Your task to perform on an android device: Show me productivity apps on the Play Store Image 0: 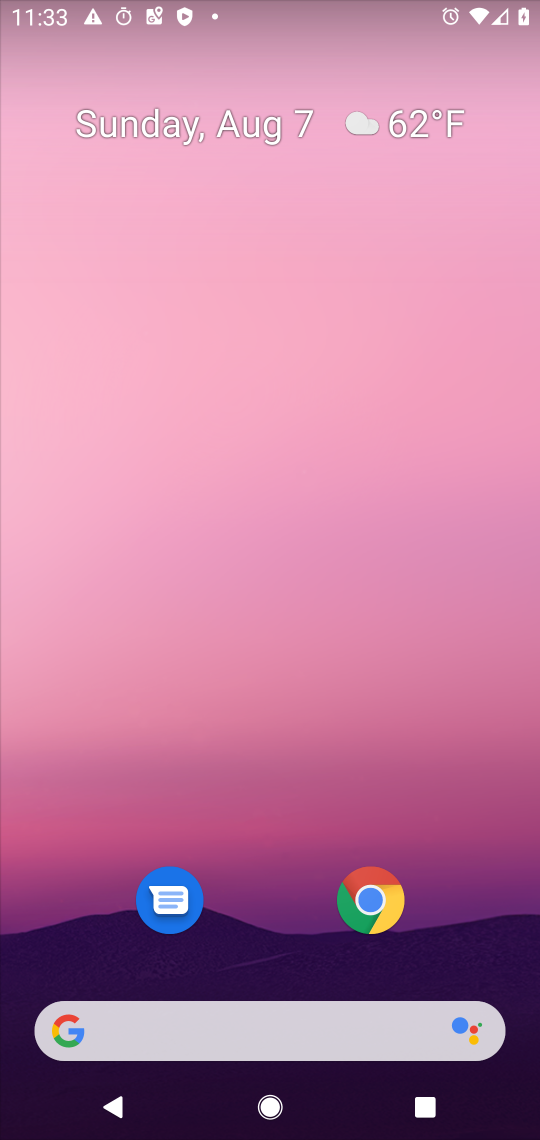
Step 0: press home button
Your task to perform on an android device: Show me productivity apps on the Play Store Image 1: 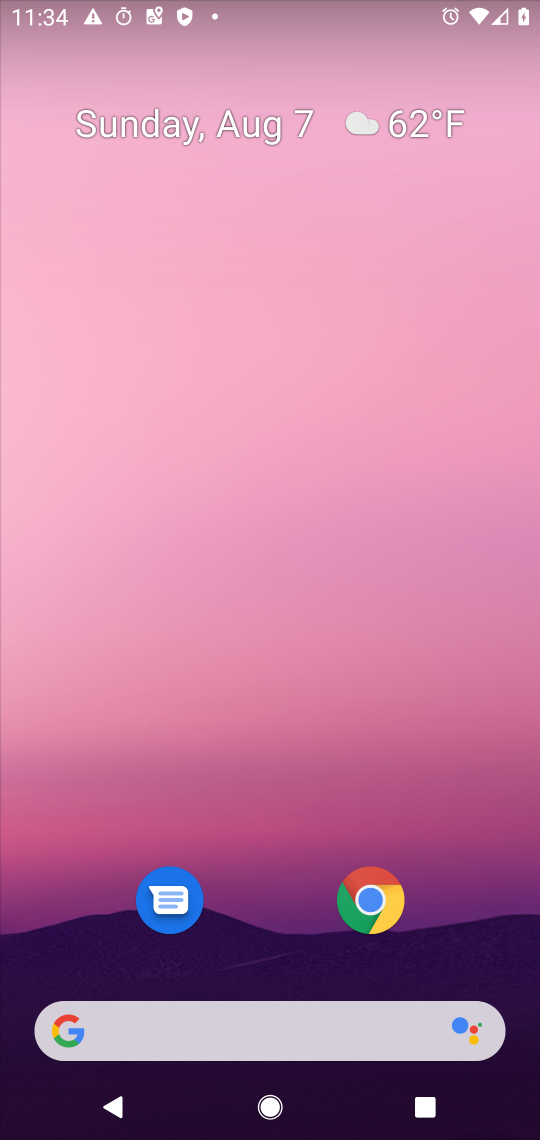
Step 1: drag from (269, 961) to (264, 69)
Your task to perform on an android device: Show me productivity apps on the Play Store Image 2: 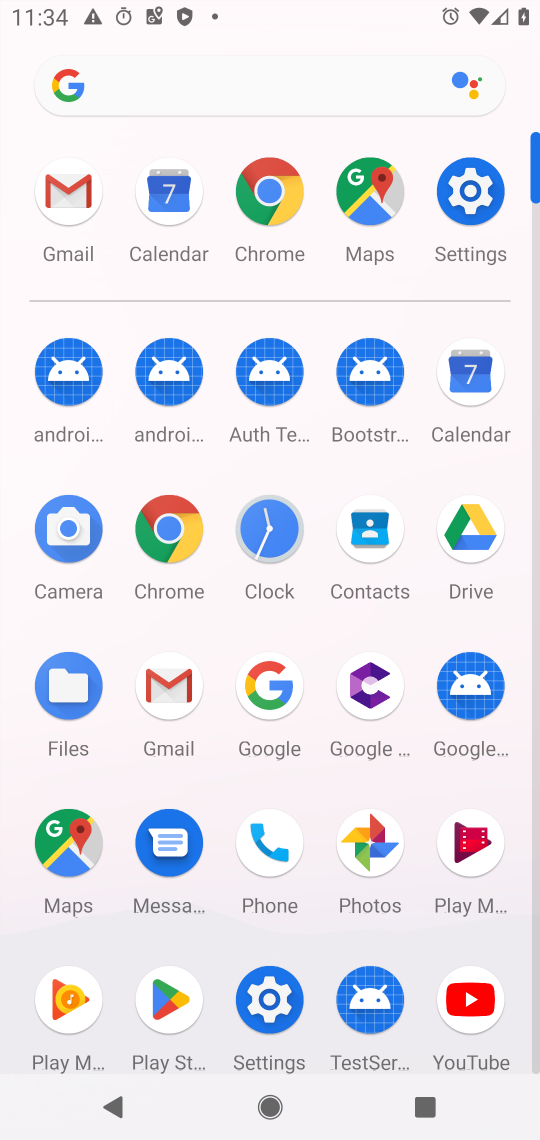
Step 2: click (163, 991)
Your task to perform on an android device: Show me productivity apps on the Play Store Image 3: 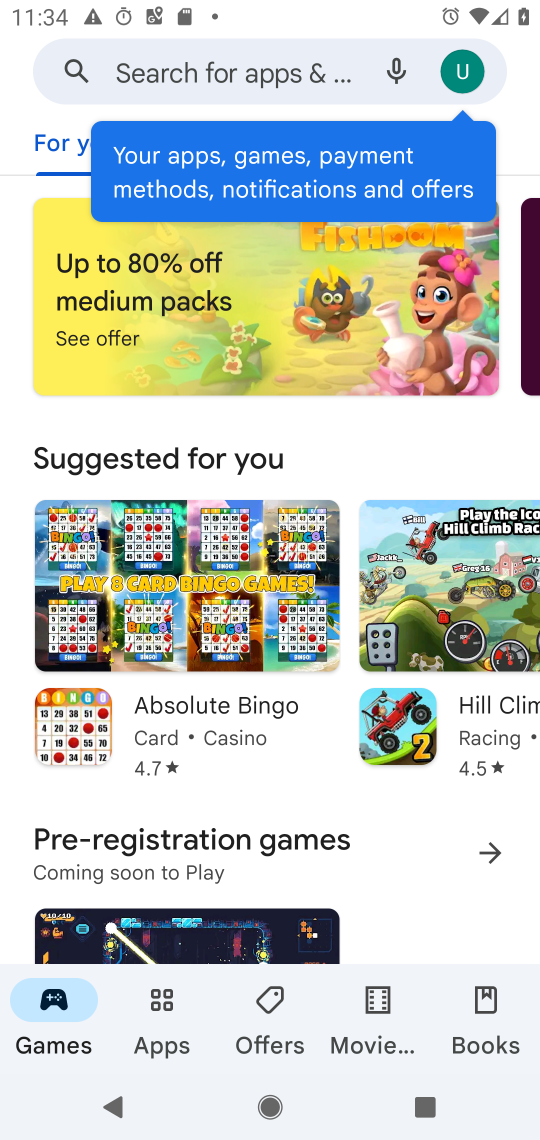
Step 3: click (151, 1010)
Your task to perform on an android device: Show me productivity apps on the Play Store Image 4: 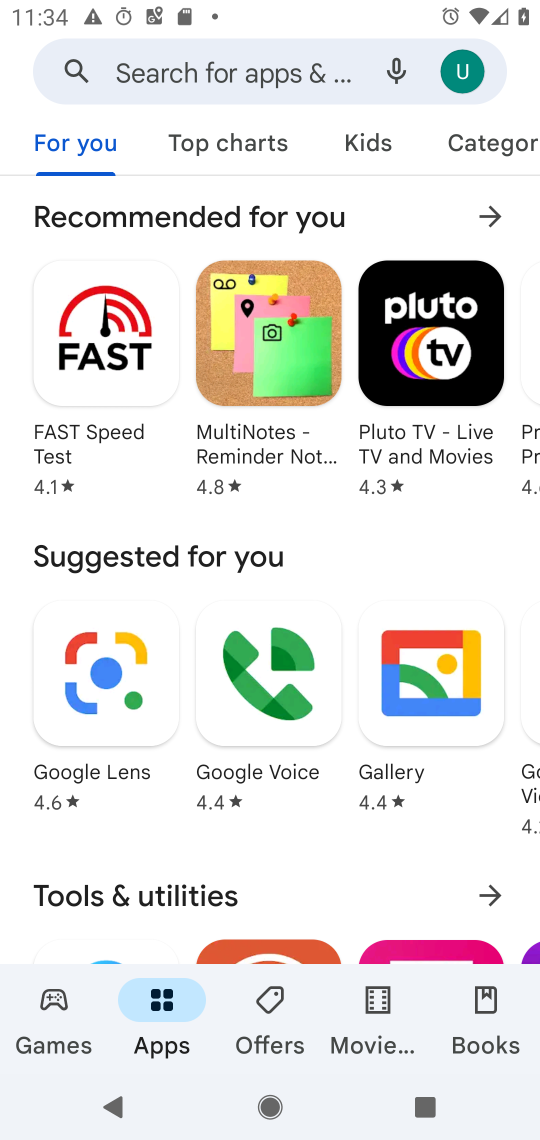
Step 4: click (493, 139)
Your task to perform on an android device: Show me productivity apps on the Play Store Image 5: 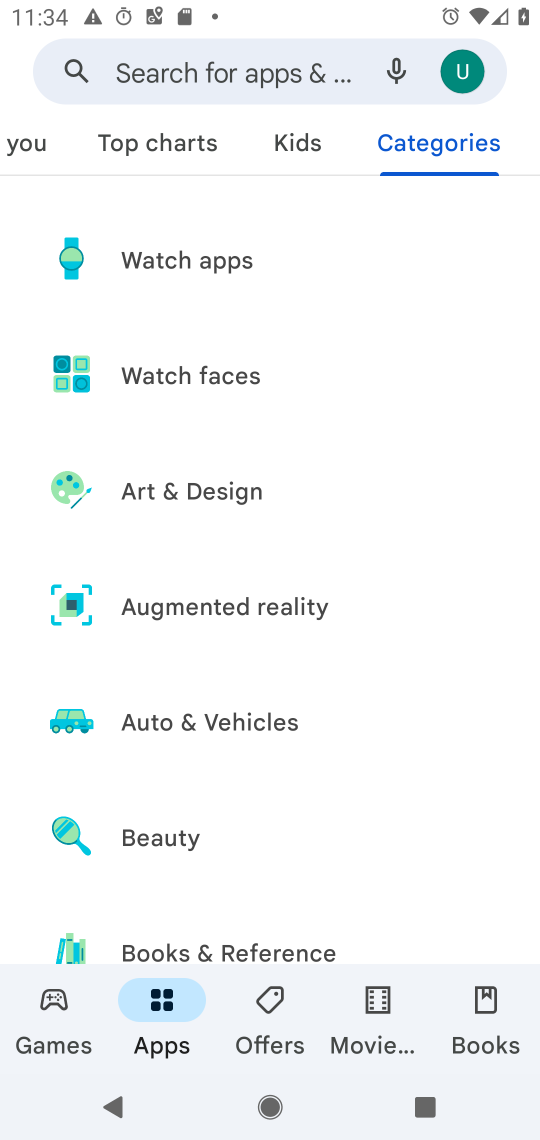
Step 5: drag from (237, 924) to (276, 51)
Your task to perform on an android device: Show me productivity apps on the Play Store Image 6: 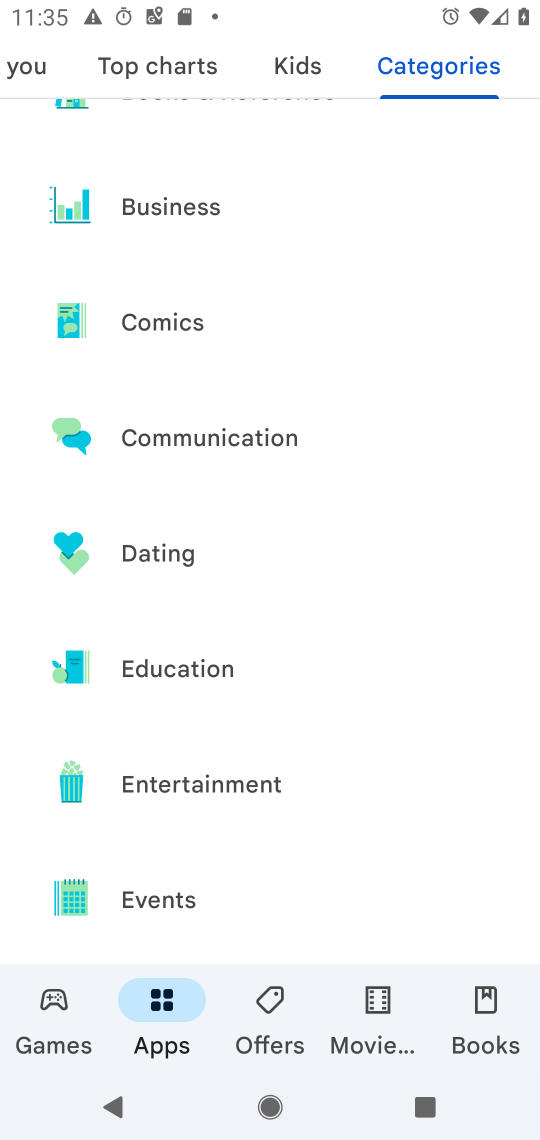
Step 6: drag from (270, 904) to (325, 0)
Your task to perform on an android device: Show me productivity apps on the Play Store Image 7: 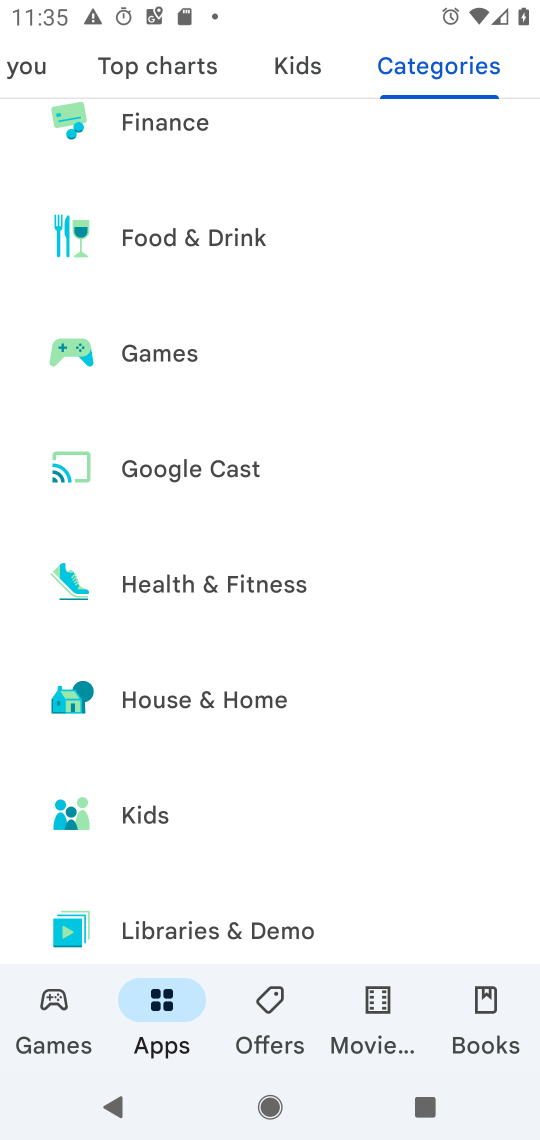
Step 7: drag from (273, 868) to (342, 108)
Your task to perform on an android device: Show me productivity apps on the Play Store Image 8: 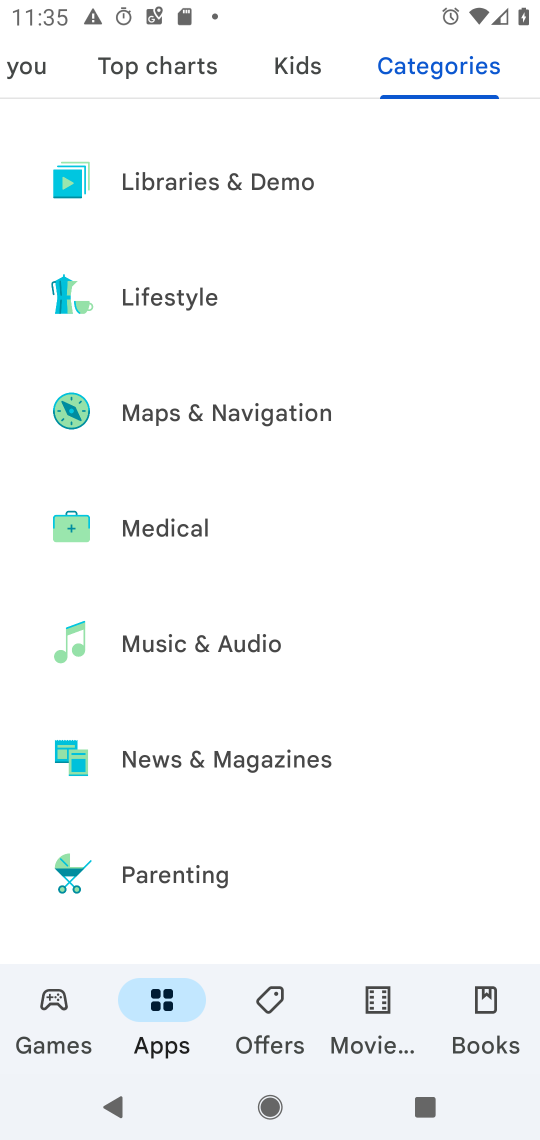
Step 8: drag from (254, 903) to (230, 34)
Your task to perform on an android device: Show me productivity apps on the Play Store Image 9: 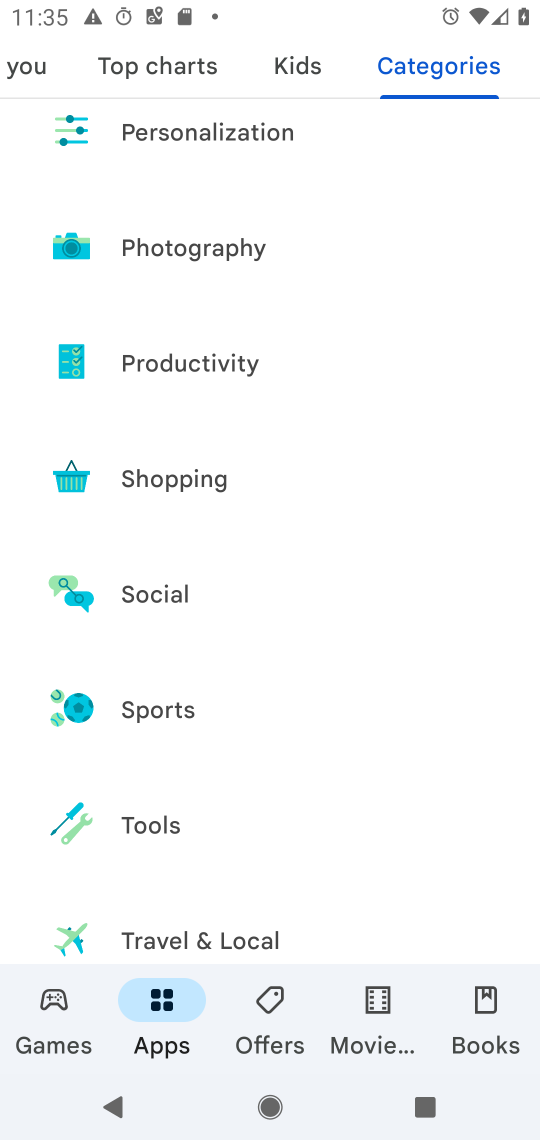
Step 9: drag from (224, 881) to (298, 1013)
Your task to perform on an android device: Show me productivity apps on the Play Store Image 10: 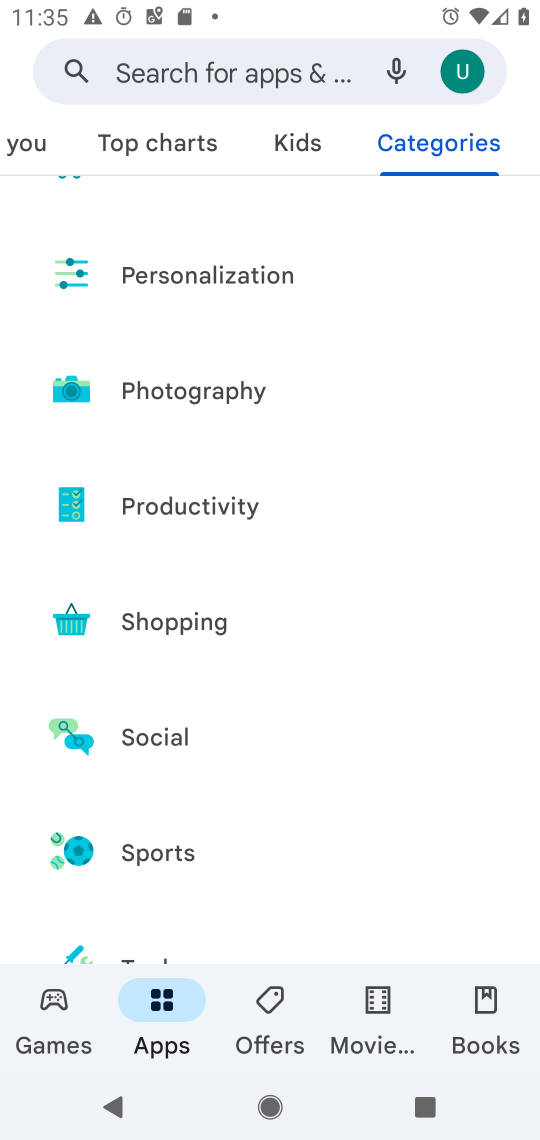
Step 10: click (258, 512)
Your task to perform on an android device: Show me productivity apps on the Play Store Image 11: 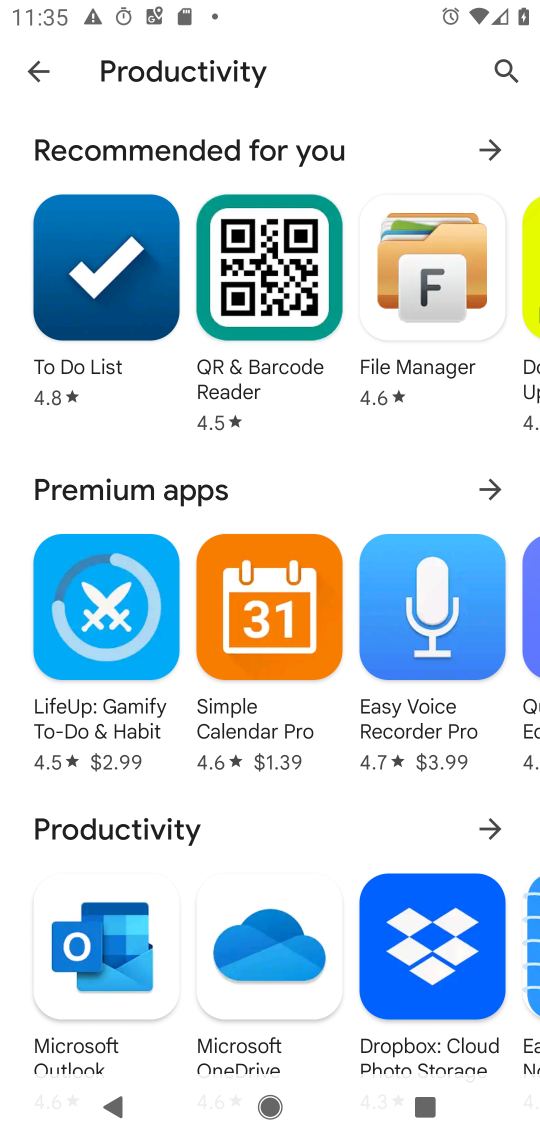
Step 11: task complete